Your task to perform on an android device: What's the weather? Image 0: 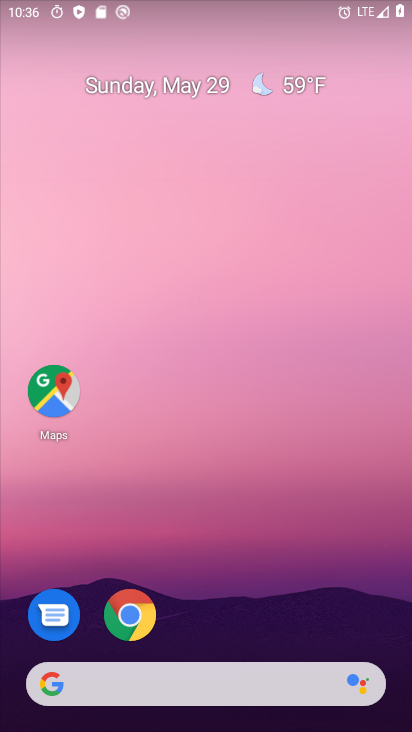
Step 0: drag from (219, 570) to (277, 62)
Your task to perform on an android device: What's the weather? Image 1: 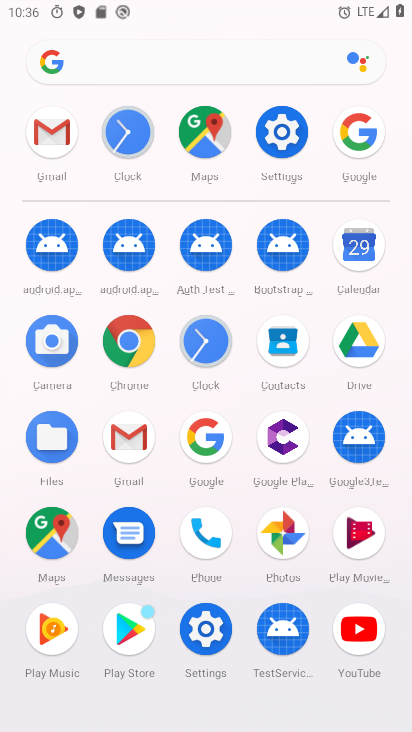
Step 1: click (205, 439)
Your task to perform on an android device: What's the weather? Image 2: 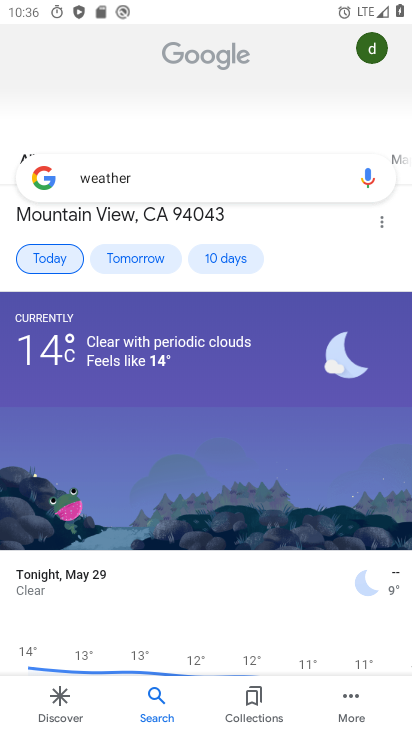
Step 2: click (191, 167)
Your task to perform on an android device: What's the weather? Image 3: 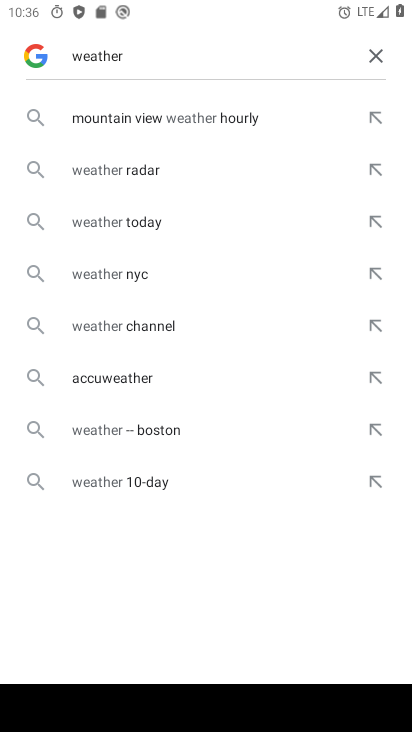
Step 3: task complete